Your task to perform on an android device: Set the phone to "Do not disturb". Image 0: 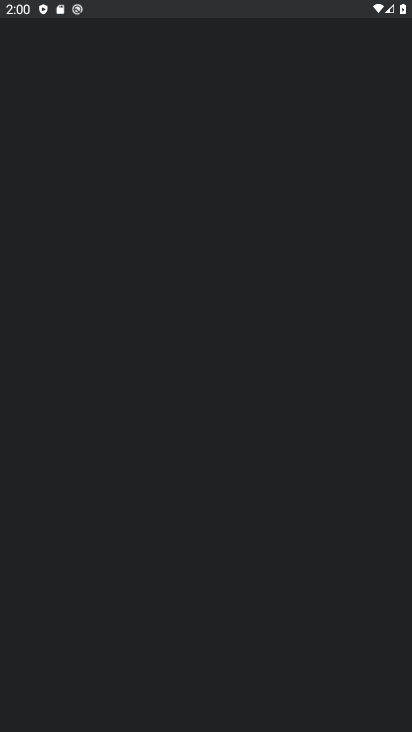
Step 0: drag from (239, 2) to (231, 411)
Your task to perform on an android device: Set the phone to "Do not disturb". Image 1: 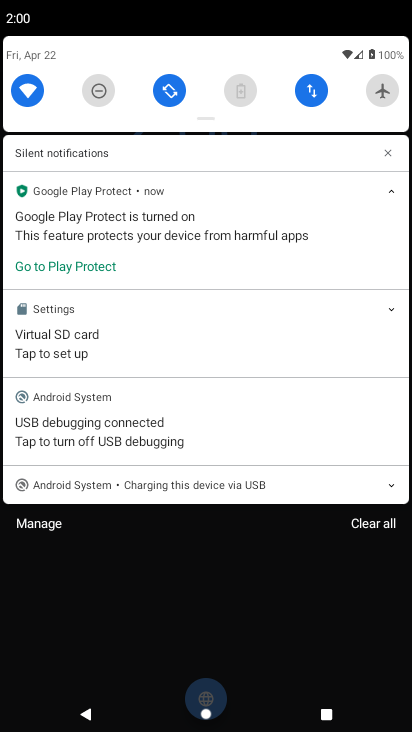
Step 1: press home button
Your task to perform on an android device: Set the phone to "Do not disturb". Image 2: 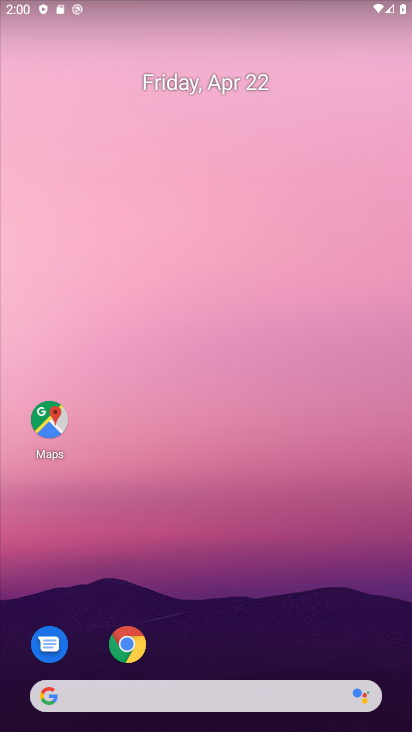
Step 2: drag from (278, 7) to (231, 366)
Your task to perform on an android device: Set the phone to "Do not disturb". Image 3: 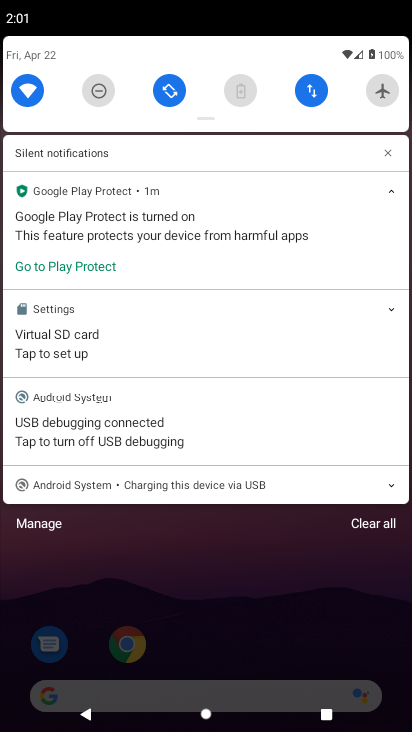
Step 3: click (101, 91)
Your task to perform on an android device: Set the phone to "Do not disturb". Image 4: 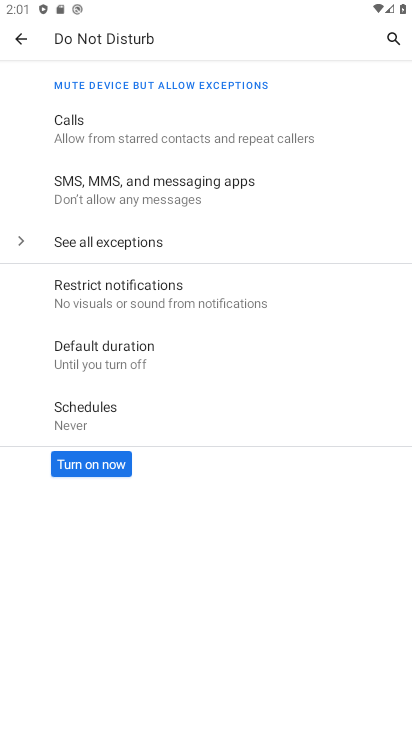
Step 4: click (90, 454)
Your task to perform on an android device: Set the phone to "Do not disturb". Image 5: 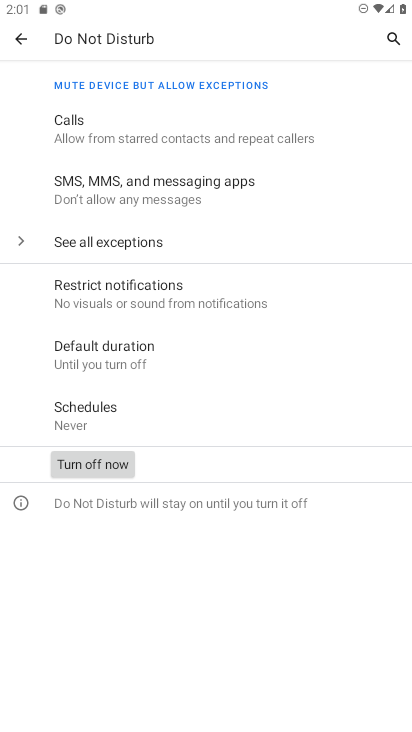
Step 5: click (95, 462)
Your task to perform on an android device: Set the phone to "Do not disturb". Image 6: 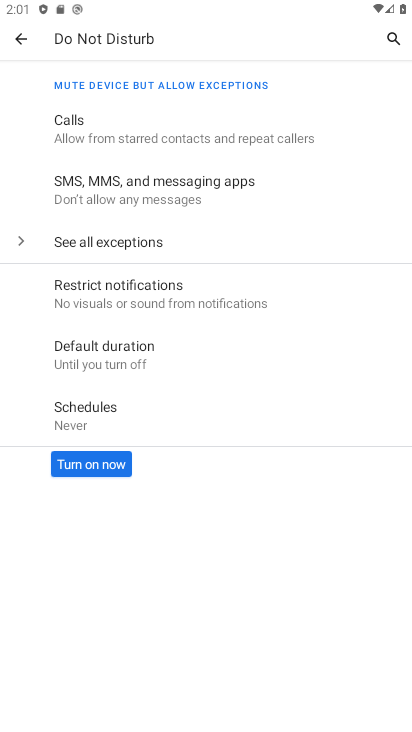
Step 6: click (98, 468)
Your task to perform on an android device: Set the phone to "Do not disturb". Image 7: 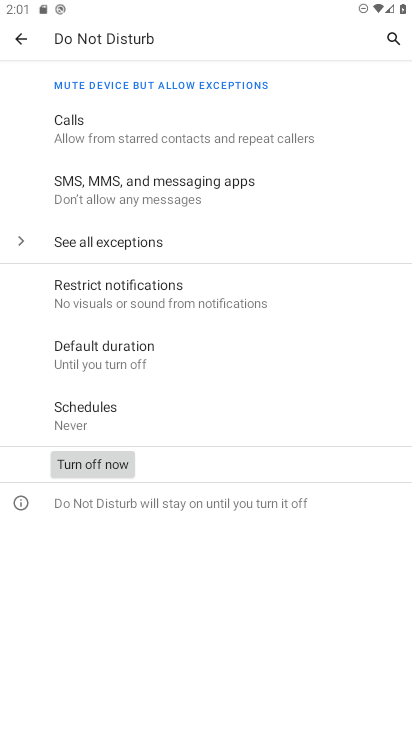
Step 7: task complete